Your task to perform on an android device: Open the map Image 0: 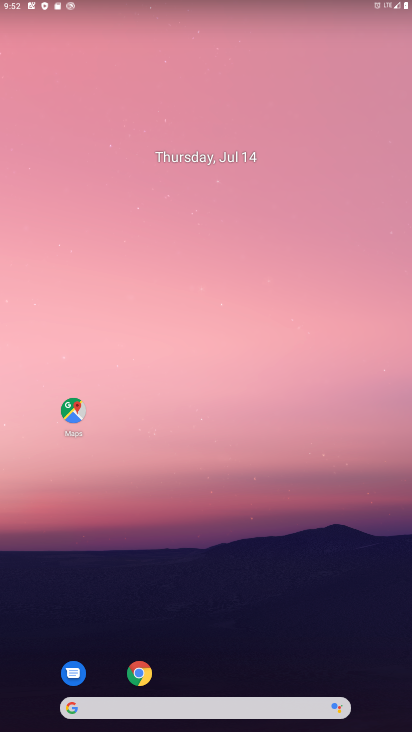
Step 0: click (73, 412)
Your task to perform on an android device: Open the map Image 1: 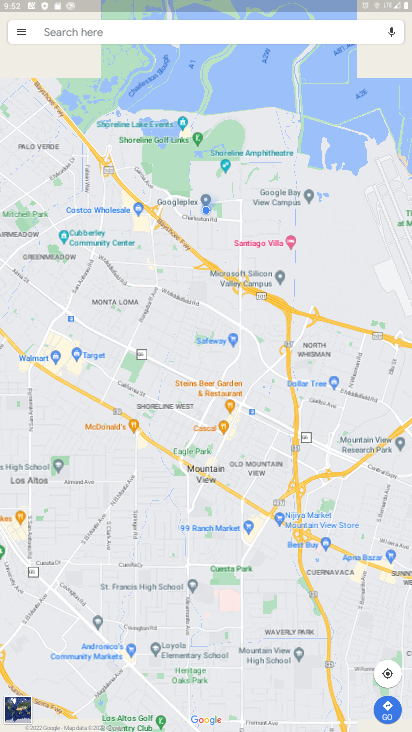
Step 1: task complete